Your task to perform on an android device: turn off notifications in google photos Image 0: 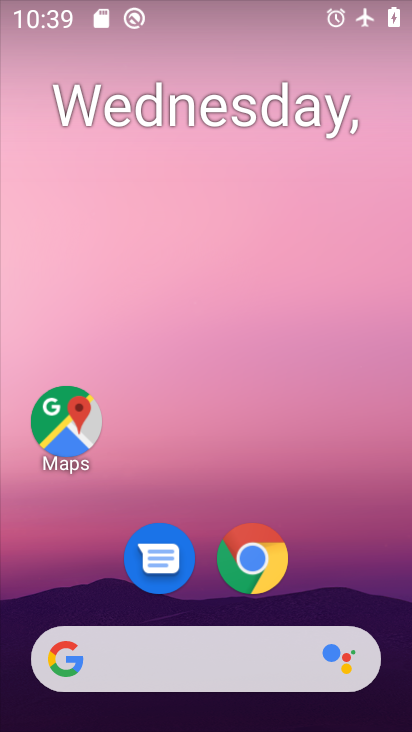
Step 0: drag from (361, 589) to (387, 140)
Your task to perform on an android device: turn off notifications in google photos Image 1: 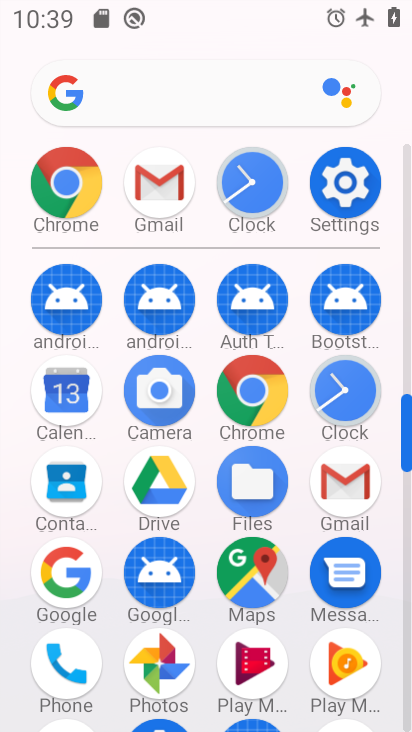
Step 1: click (175, 664)
Your task to perform on an android device: turn off notifications in google photos Image 2: 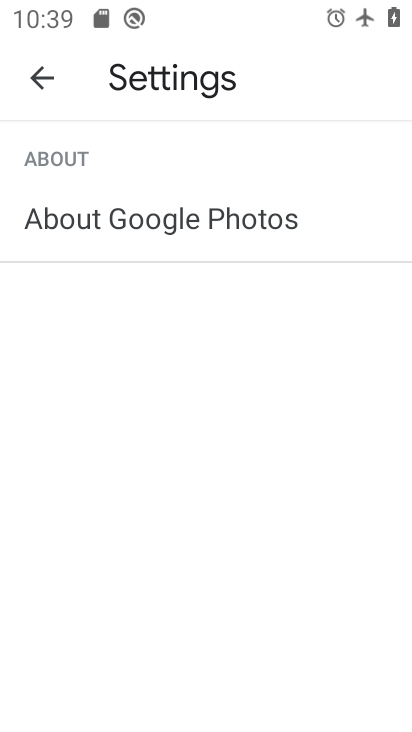
Step 2: press back button
Your task to perform on an android device: turn off notifications in google photos Image 3: 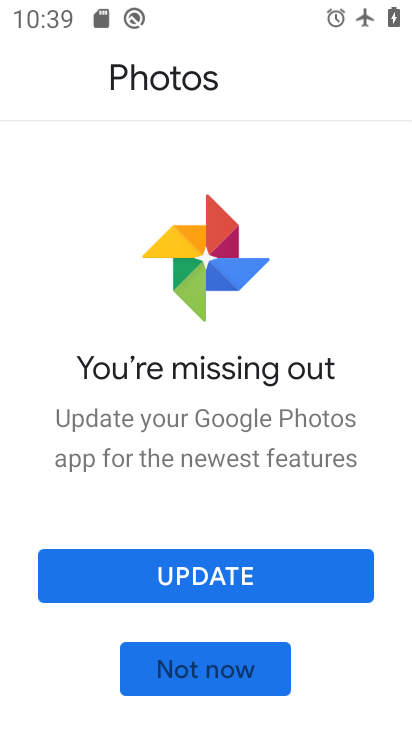
Step 3: click (287, 581)
Your task to perform on an android device: turn off notifications in google photos Image 4: 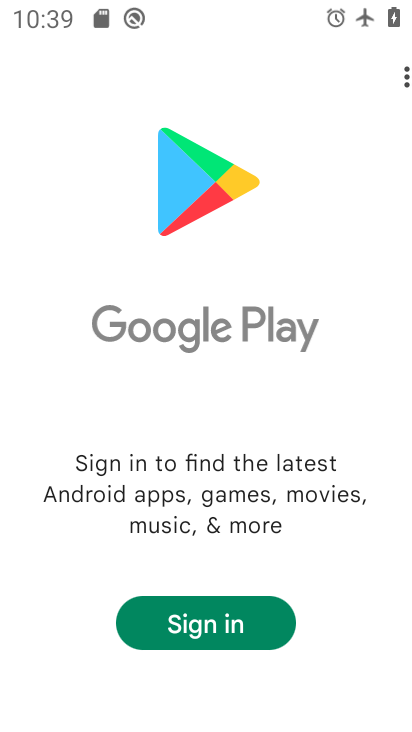
Step 4: task complete